Your task to perform on an android device: Search for Mexican restaurants on Maps Image 0: 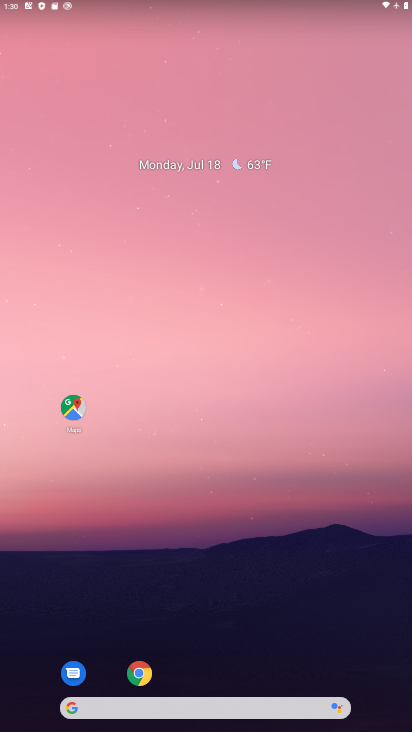
Step 0: drag from (241, 681) to (196, 276)
Your task to perform on an android device: Search for Mexican restaurants on Maps Image 1: 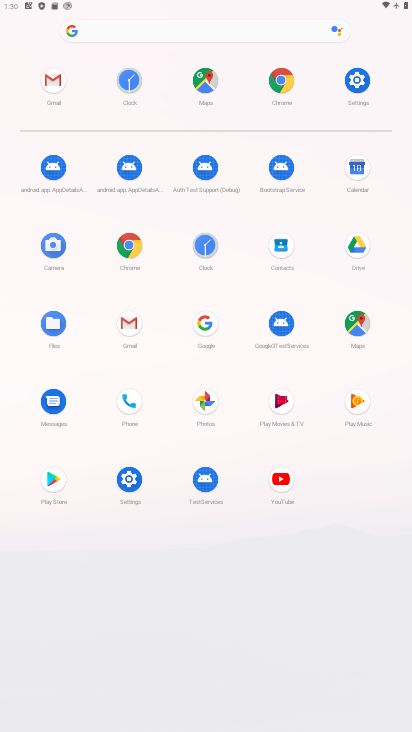
Step 1: click (202, 92)
Your task to perform on an android device: Search for Mexican restaurants on Maps Image 2: 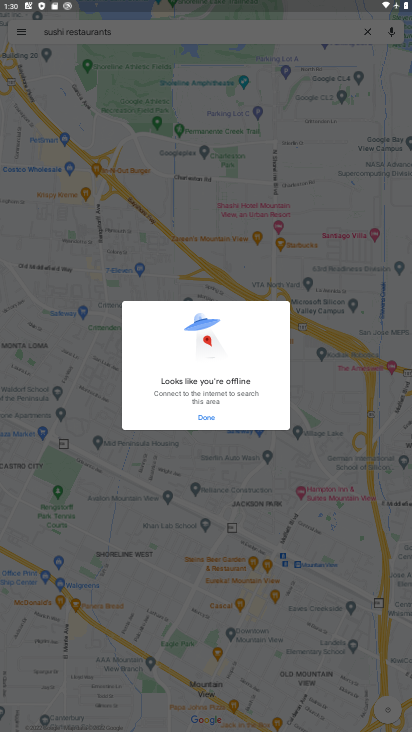
Step 2: click (217, 418)
Your task to perform on an android device: Search for Mexican restaurants on Maps Image 3: 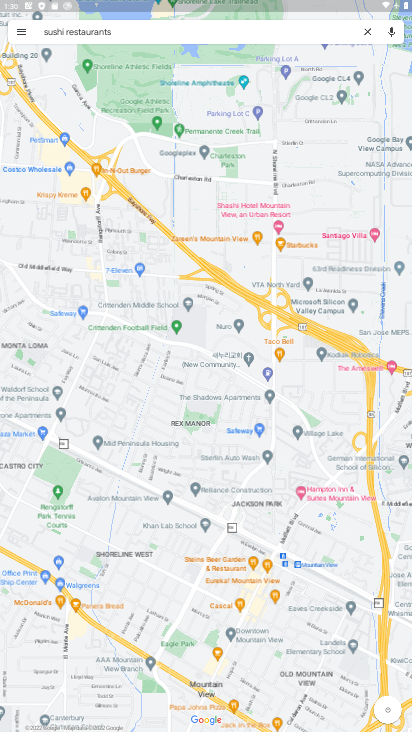
Step 3: click (366, 27)
Your task to perform on an android device: Search for Mexican restaurants on Maps Image 4: 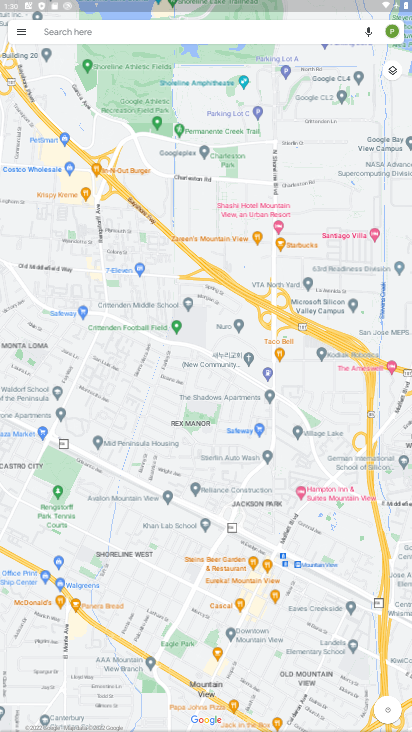
Step 4: click (245, 35)
Your task to perform on an android device: Search for Mexican restaurants on Maps Image 5: 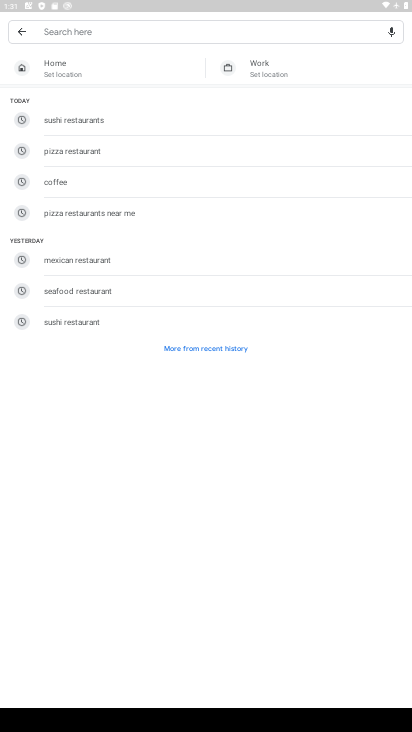
Step 5: click (141, 262)
Your task to perform on an android device: Search for Mexican restaurants on Maps Image 6: 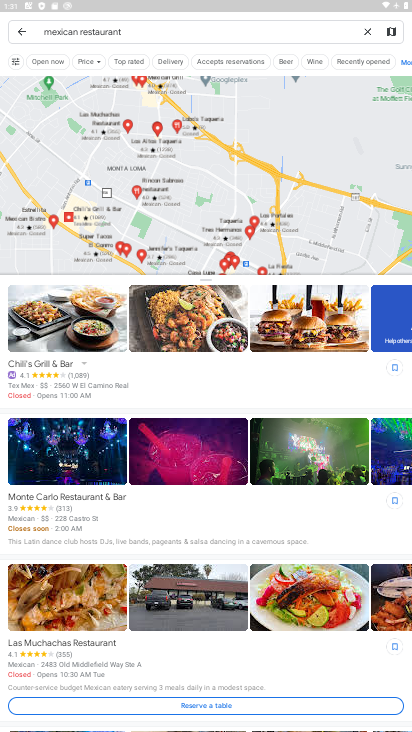
Step 6: task complete